Your task to perform on an android device: Go to calendar. Show me events next week Image 0: 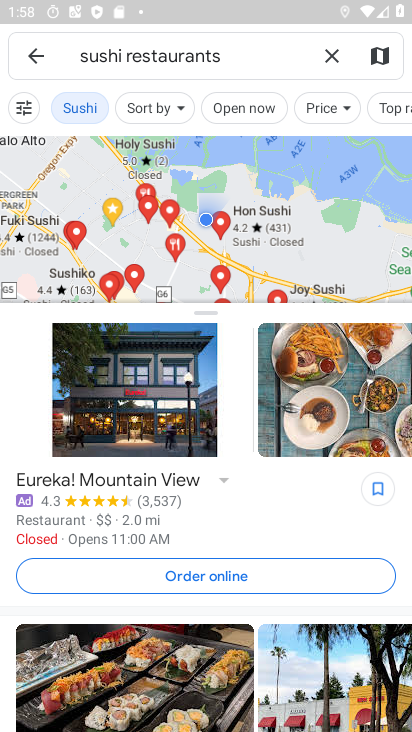
Step 0: press home button
Your task to perform on an android device: Go to calendar. Show me events next week Image 1: 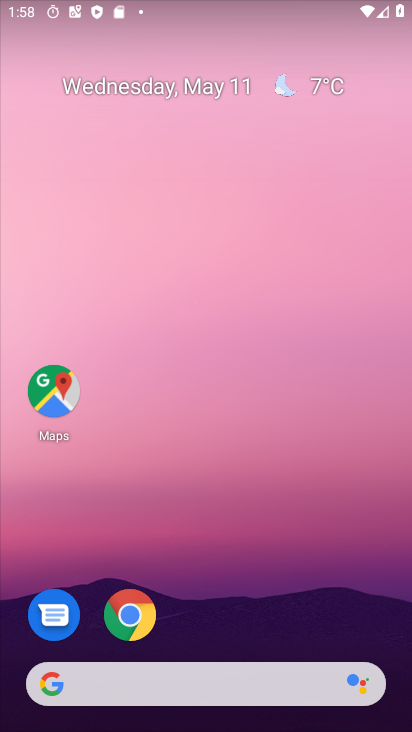
Step 1: drag from (198, 706) to (122, 56)
Your task to perform on an android device: Go to calendar. Show me events next week Image 2: 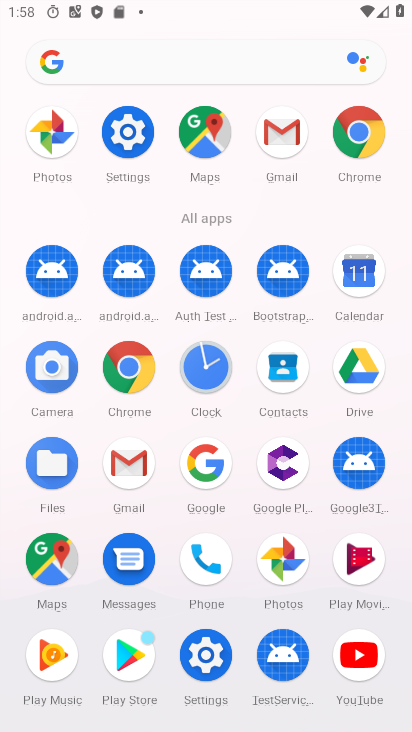
Step 2: click (361, 287)
Your task to perform on an android device: Go to calendar. Show me events next week Image 3: 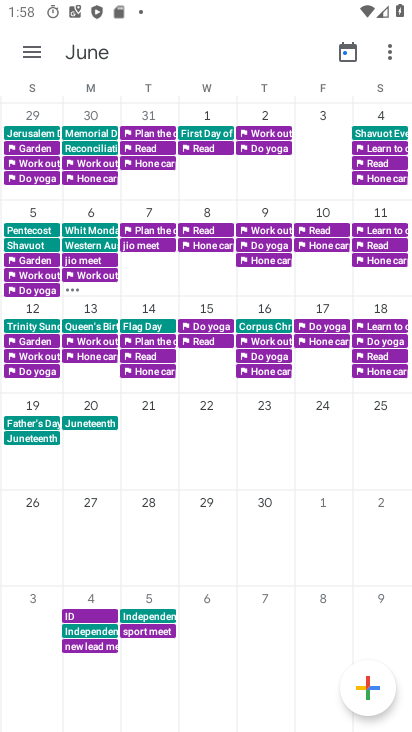
Step 3: task complete